Your task to perform on an android device: Go to Maps Image 0: 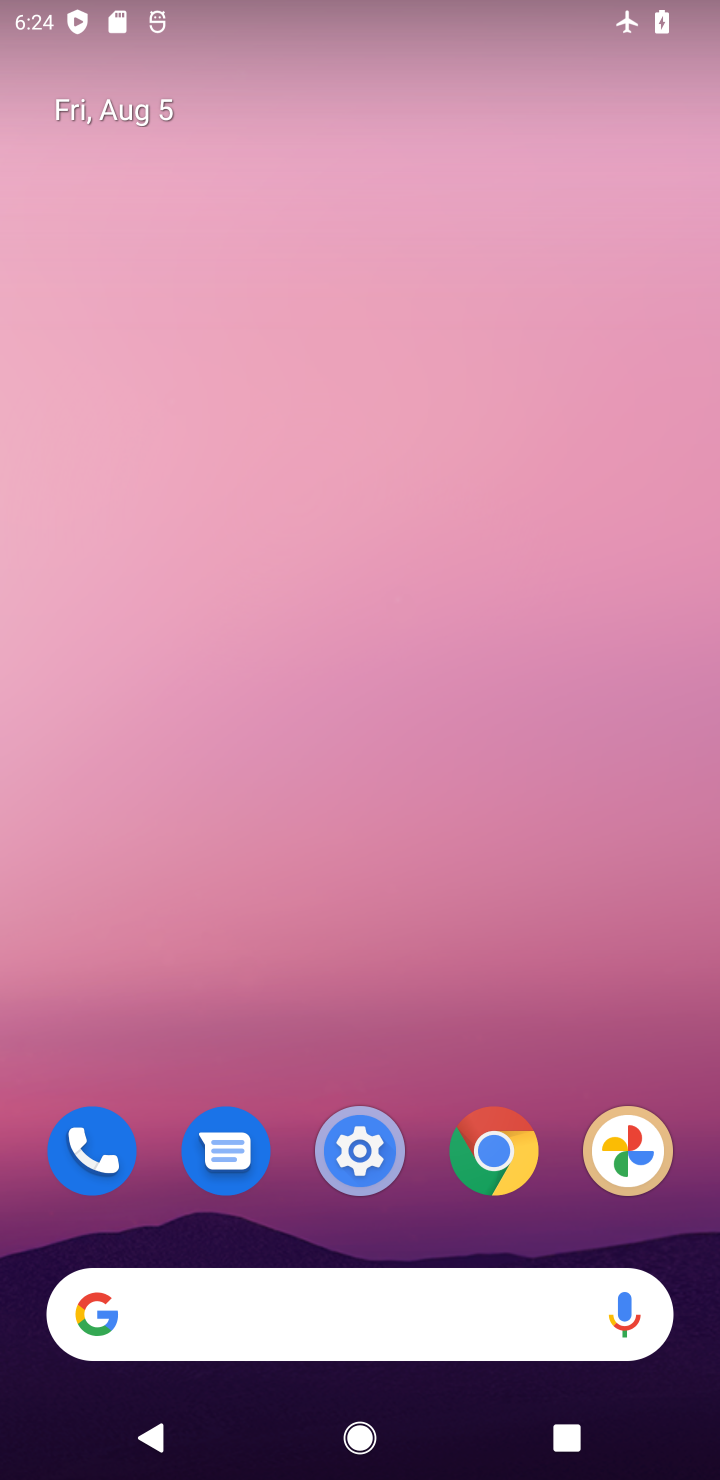
Step 0: drag from (355, 1253) to (527, 18)
Your task to perform on an android device: Go to Maps Image 1: 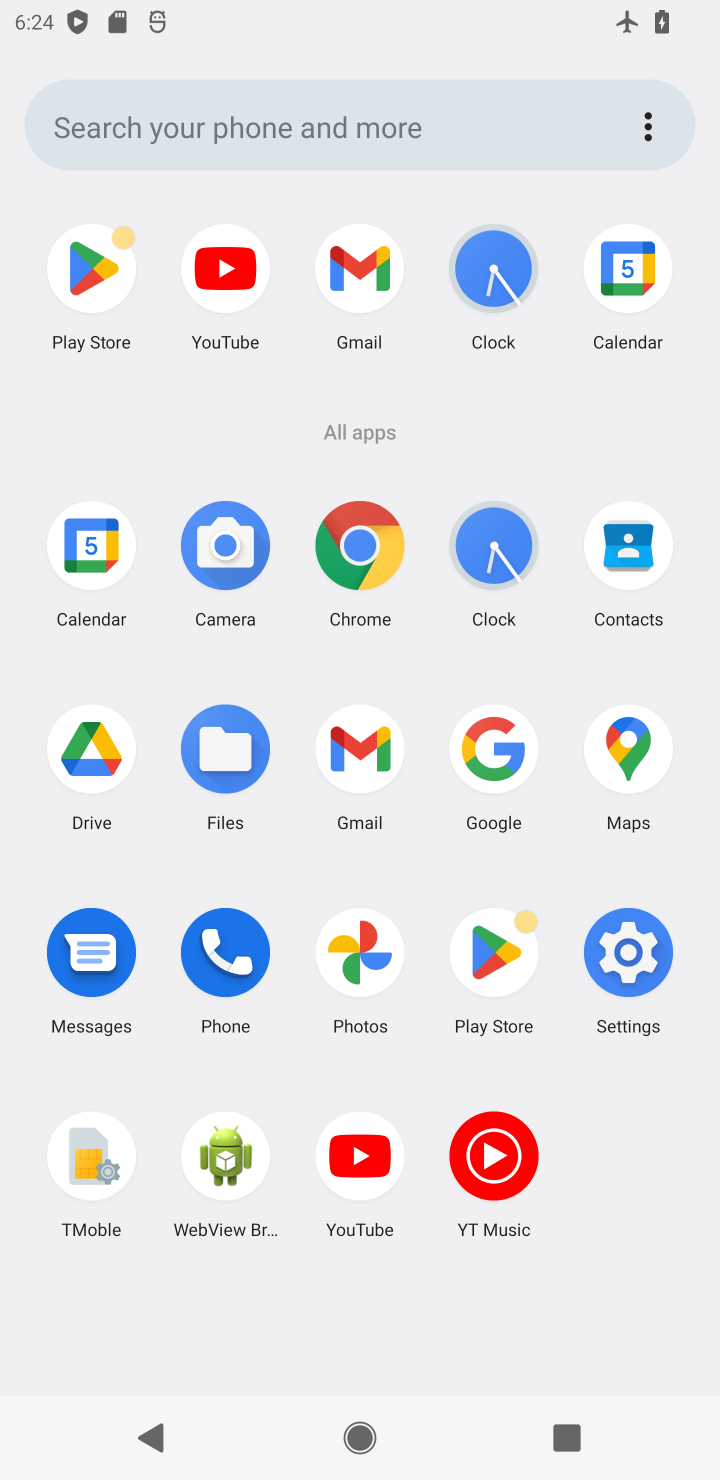
Step 1: click (639, 754)
Your task to perform on an android device: Go to Maps Image 2: 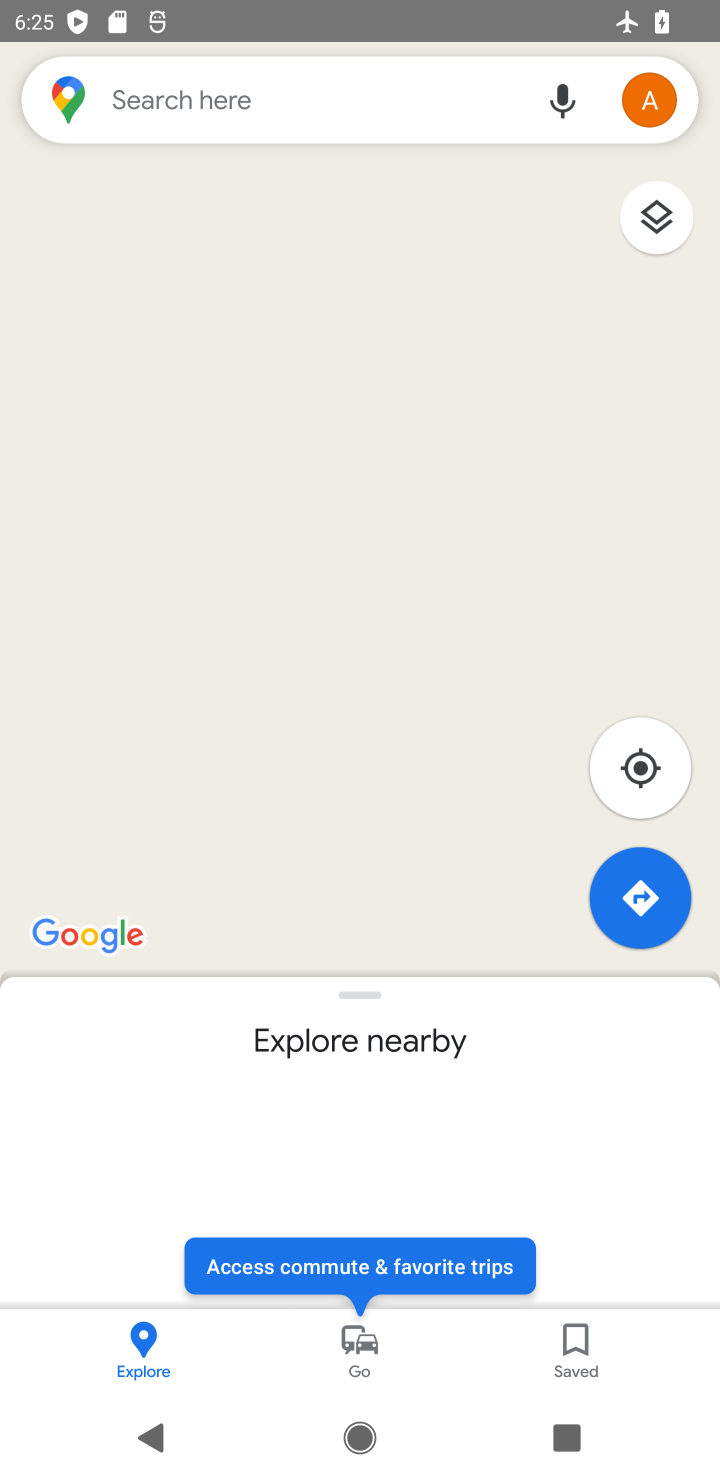
Step 2: task complete